Your task to perform on an android device: Open Google Chrome Image 0: 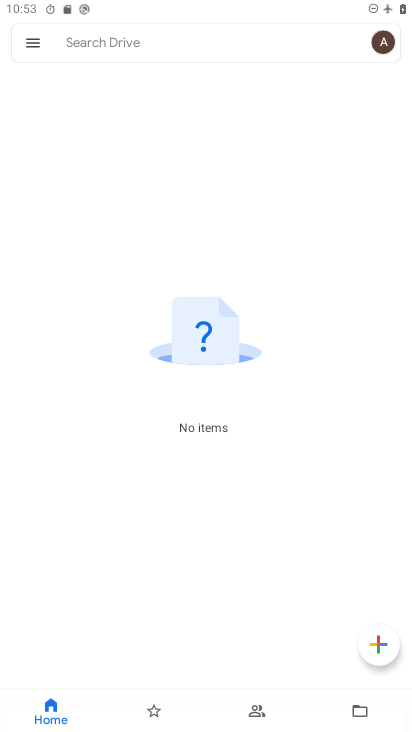
Step 0: press home button
Your task to perform on an android device: Open Google Chrome Image 1: 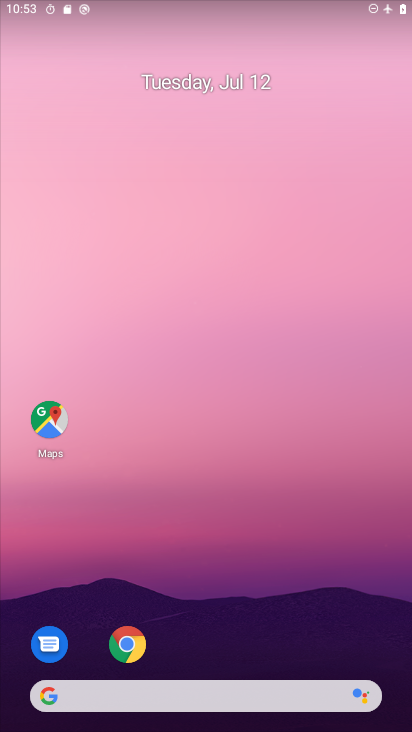
Step 1: click (113, 639)
Your task to perform on an android device: Open Google Chrome Image 2: 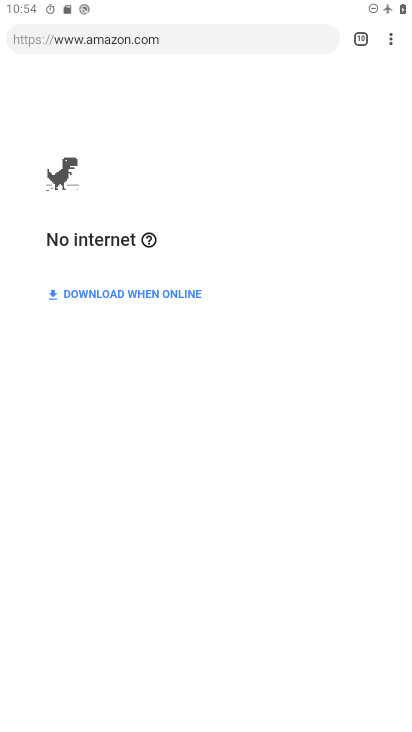
Step 2: task complete